Your task to perform on an android device: turn on priority inbox in the gmail app Image 0: 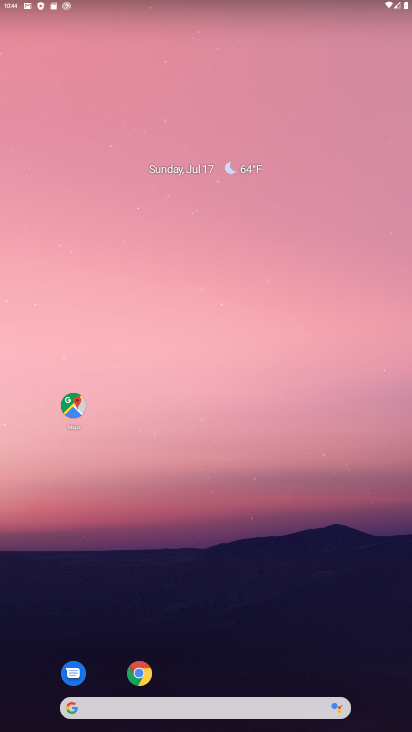
Step 0: drag from (289, 639) to (246, 111)
Your task to perform on an android device: turn on priority inbox in the gmail app Image 1: 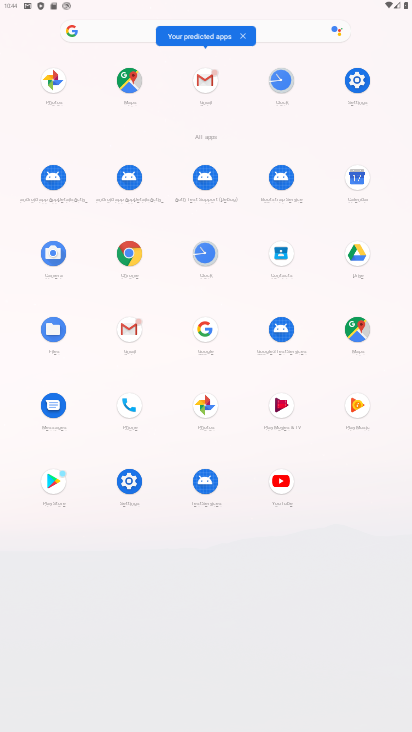
Step 1: click (135, 326)
Your task to perform on an android device: turn on priority inbox in the gmail app Image 2: 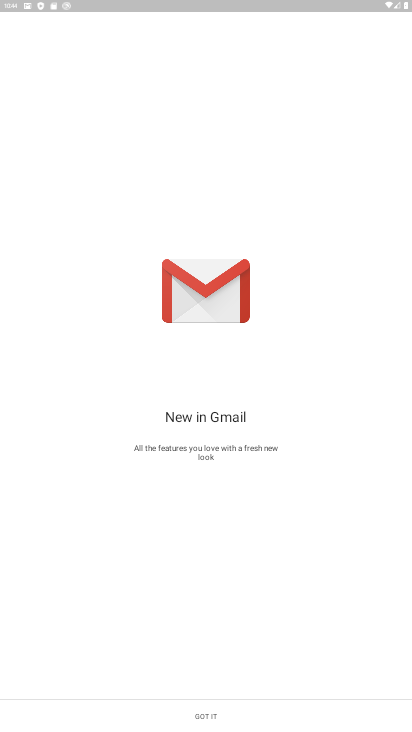
Step 2: click (207, 722)
Your task to perform on an android device: turn on priority inbox in the gmail app Image 3: 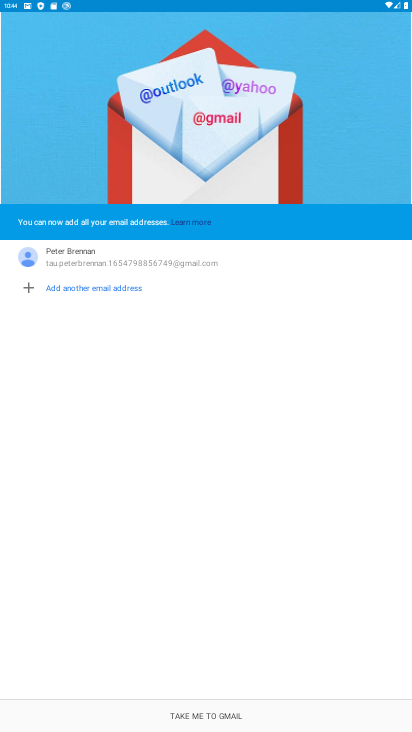
Step 3: click (207, 722)
Your task to perform on an android device: turn on priority inbox in the gmail app Image 4: 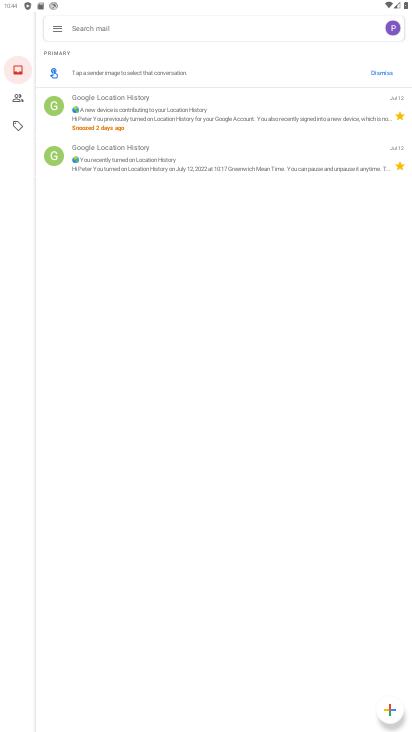
Step 4: click (52, 32)
Your task to perform on an android device: turn on priority inbox in the gmail app Image 5: 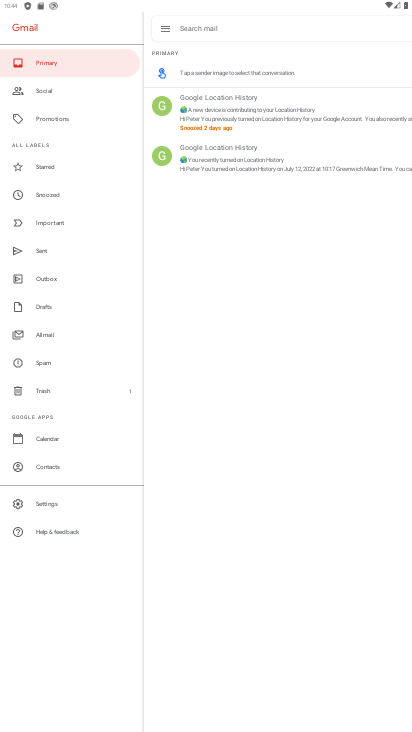
Step 5: click (46, 502)
Your task to perform on an android device: turn on priority inbox in the gmail app Image 6: 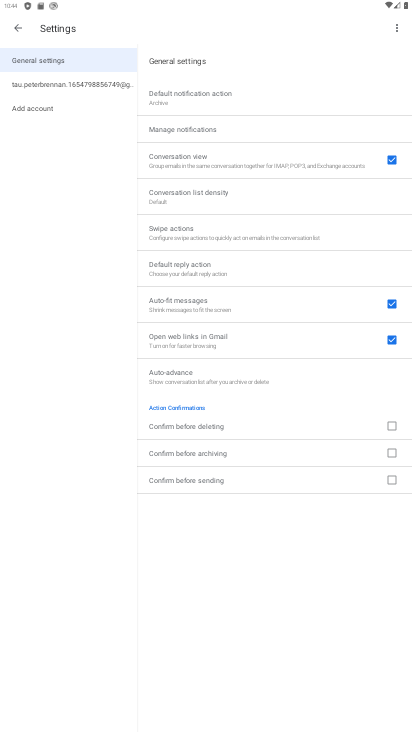
Step 6: click (80, 84)
Your task to perform on an android device: turn on priority inbox in the gmail app Image 7: 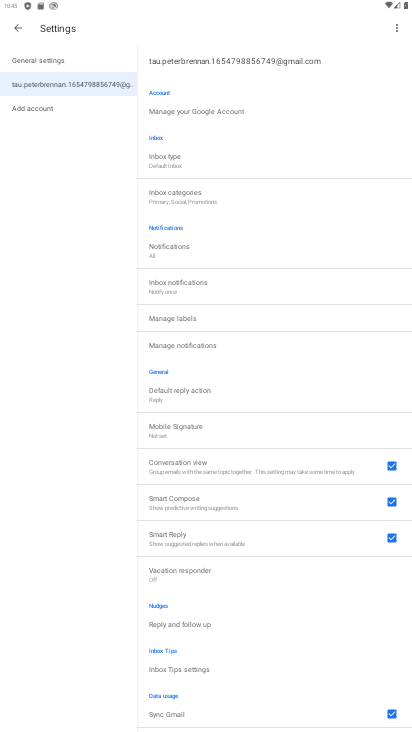
Step 7: click (167, 170)
Your task to perform on an android device: turn on priority inbox in the gmail app Image 8: 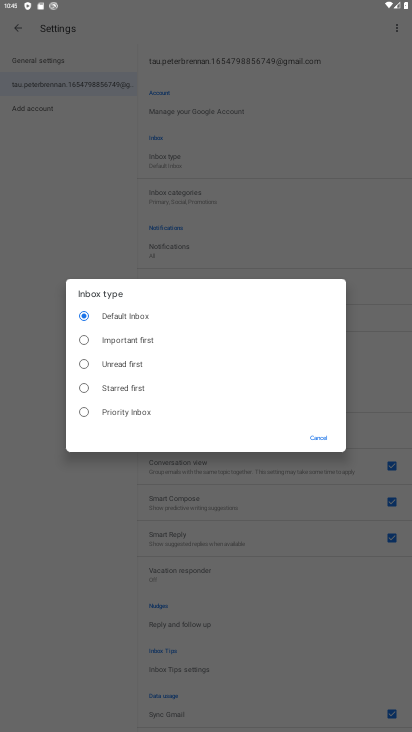
Step 8: click (142, 410)
Your task to perform on an android device: turn on priority inbox in the gmail app Image 9: 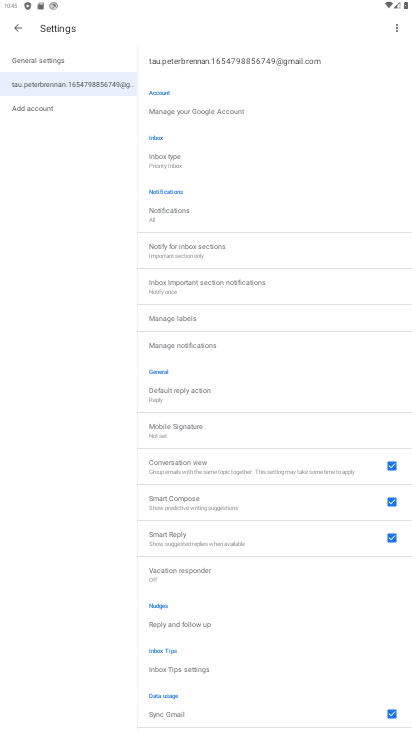
Step 9: task complete